Your task to perform on an android device: Is it going to rain tomorrow? Image 0: 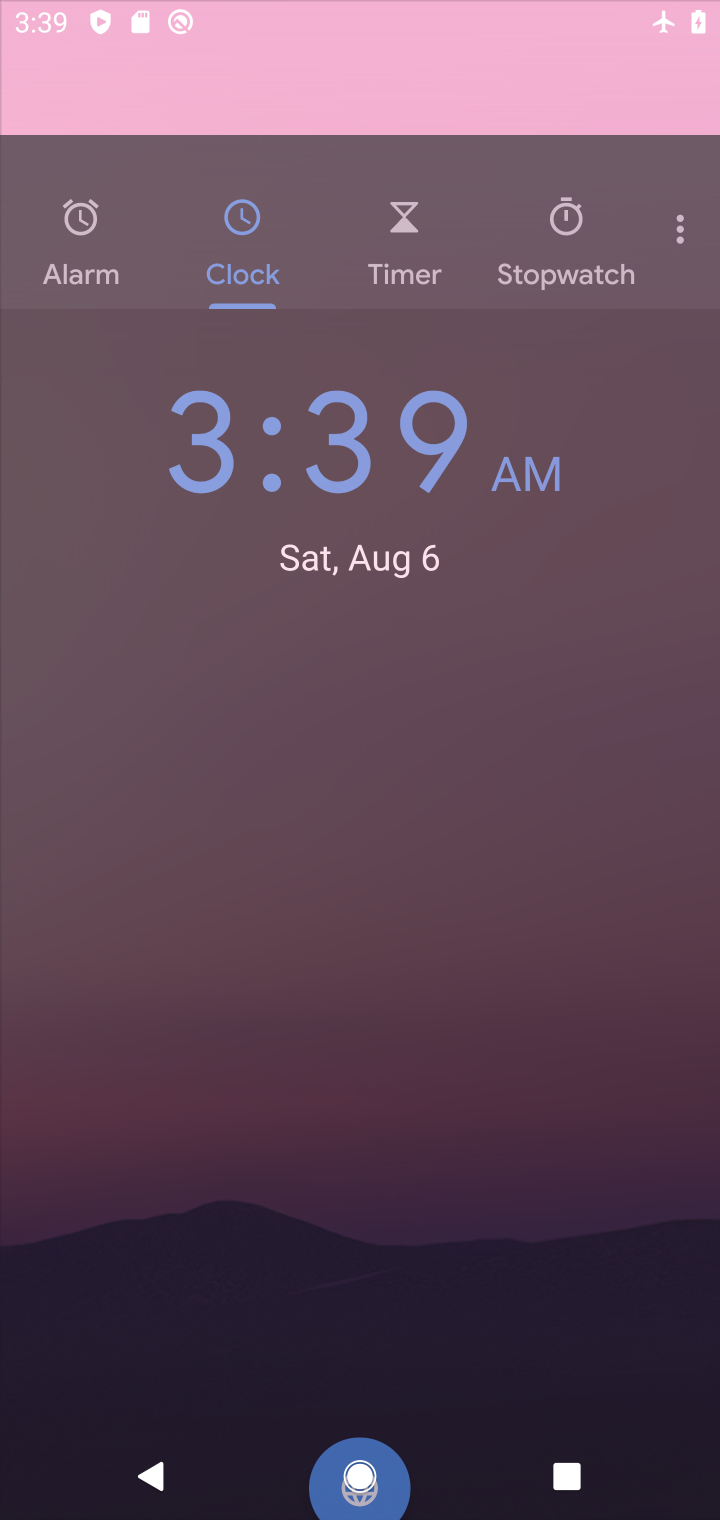
Step 0: click (84, 130)
Your task to perform on an android device: Is it going to rain tomorrow? Image 1: 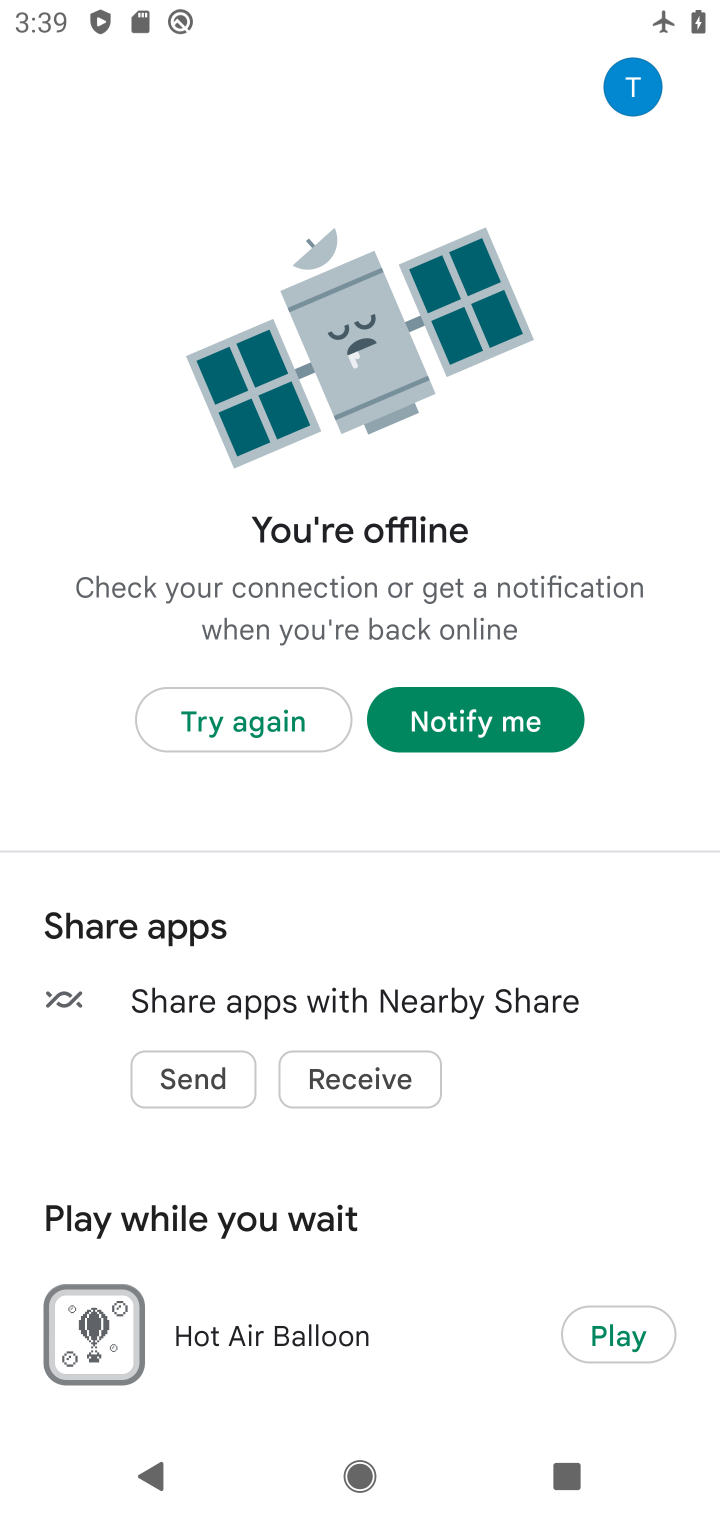
Step 1: press home button
Your task to perform on an android device: Is it going to rain tomorrow? Image 2: 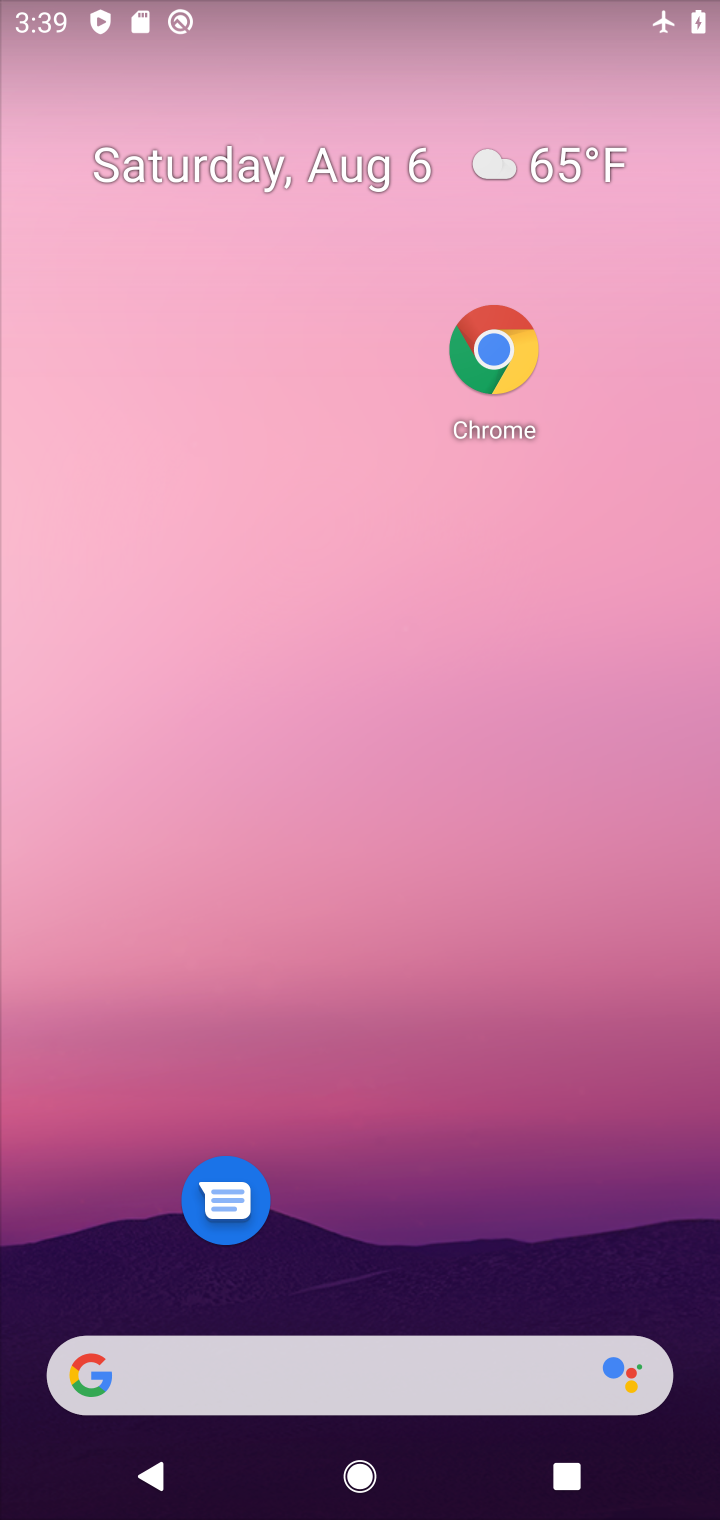
Step 2: drag from (374, 1234) to (381, 584)
Your task to perform on an android device: Is it going to rain tomorrow? Image 3: 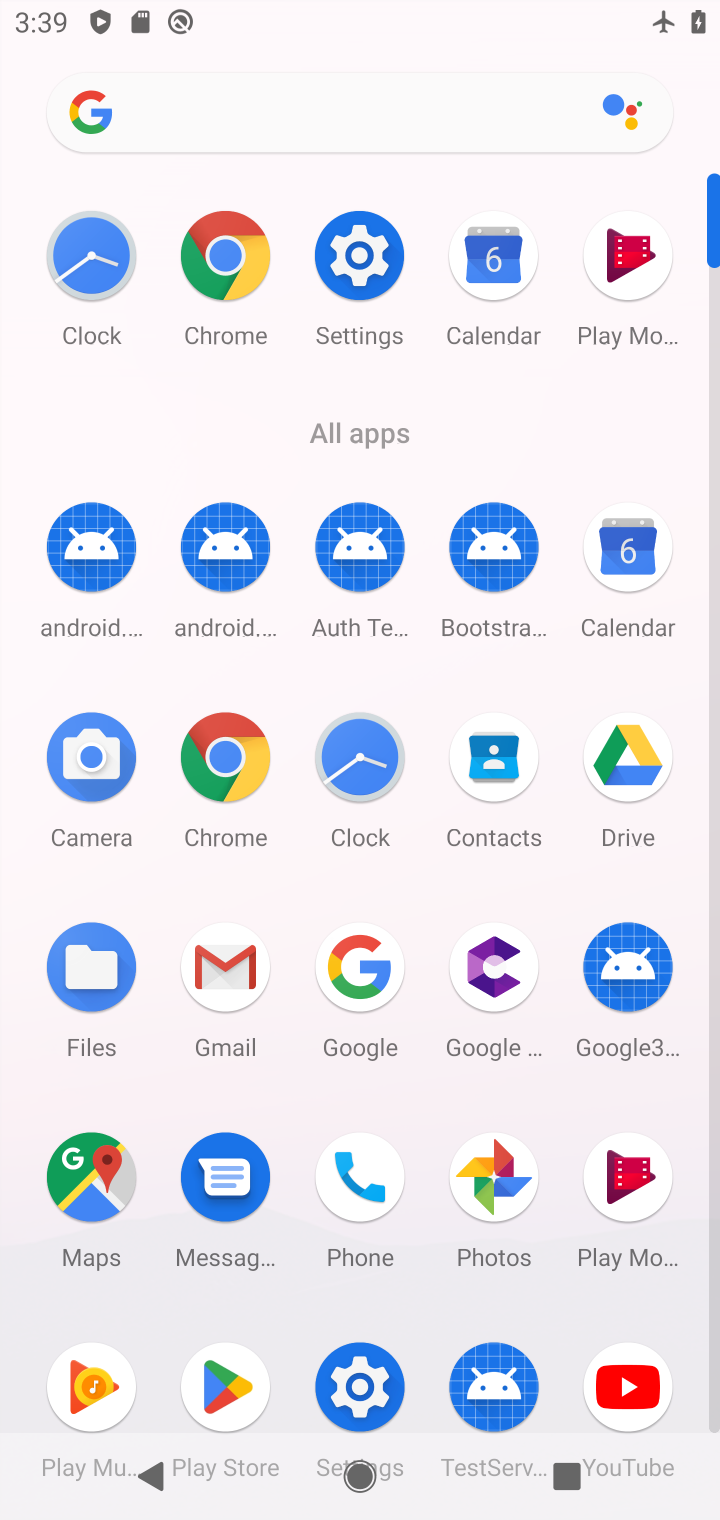
Step 3: click (350, 967)
Your task to perform on an android device: Is it going to rain tomorrow? Image 4: 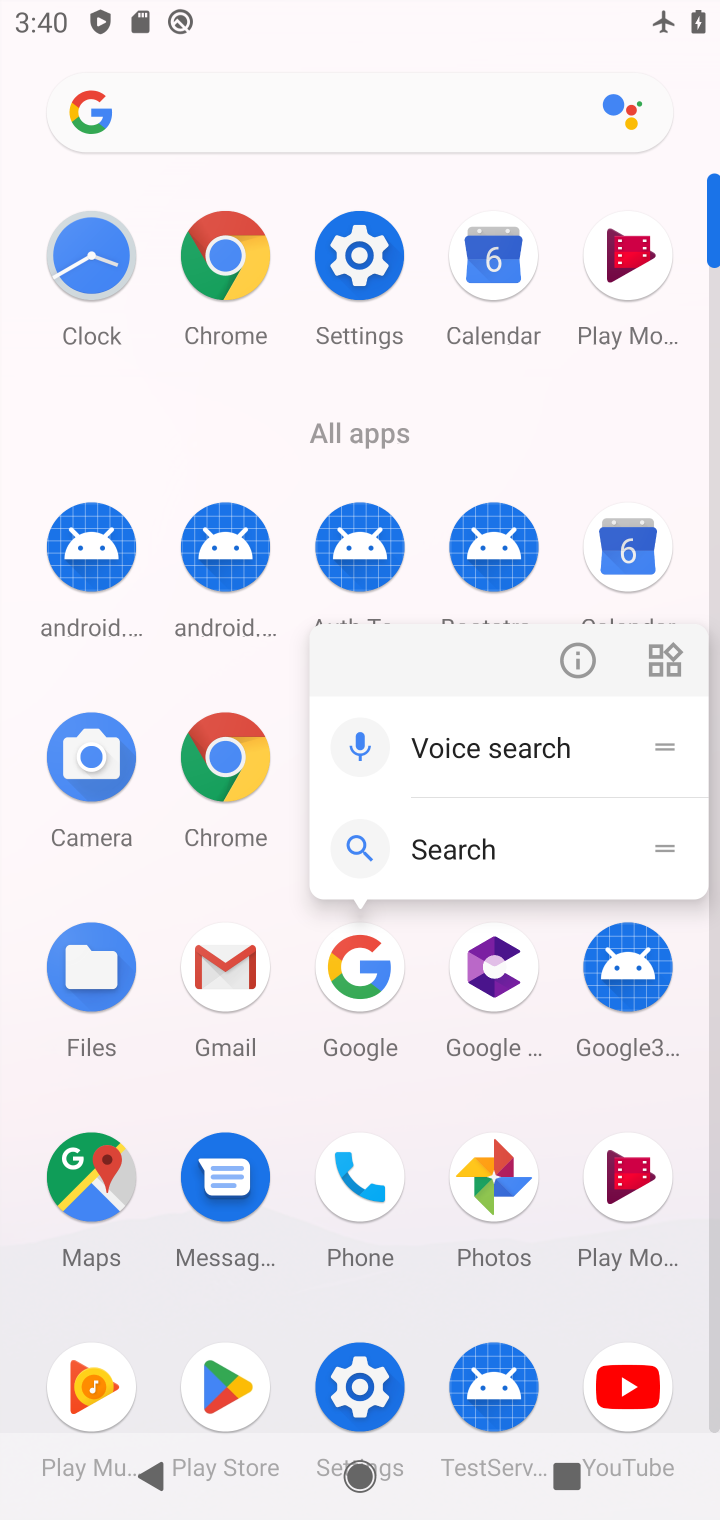
Step 4: click (370, 966)
Your task to perform on an android device: Is it going to rain tomorrow? Image 5: 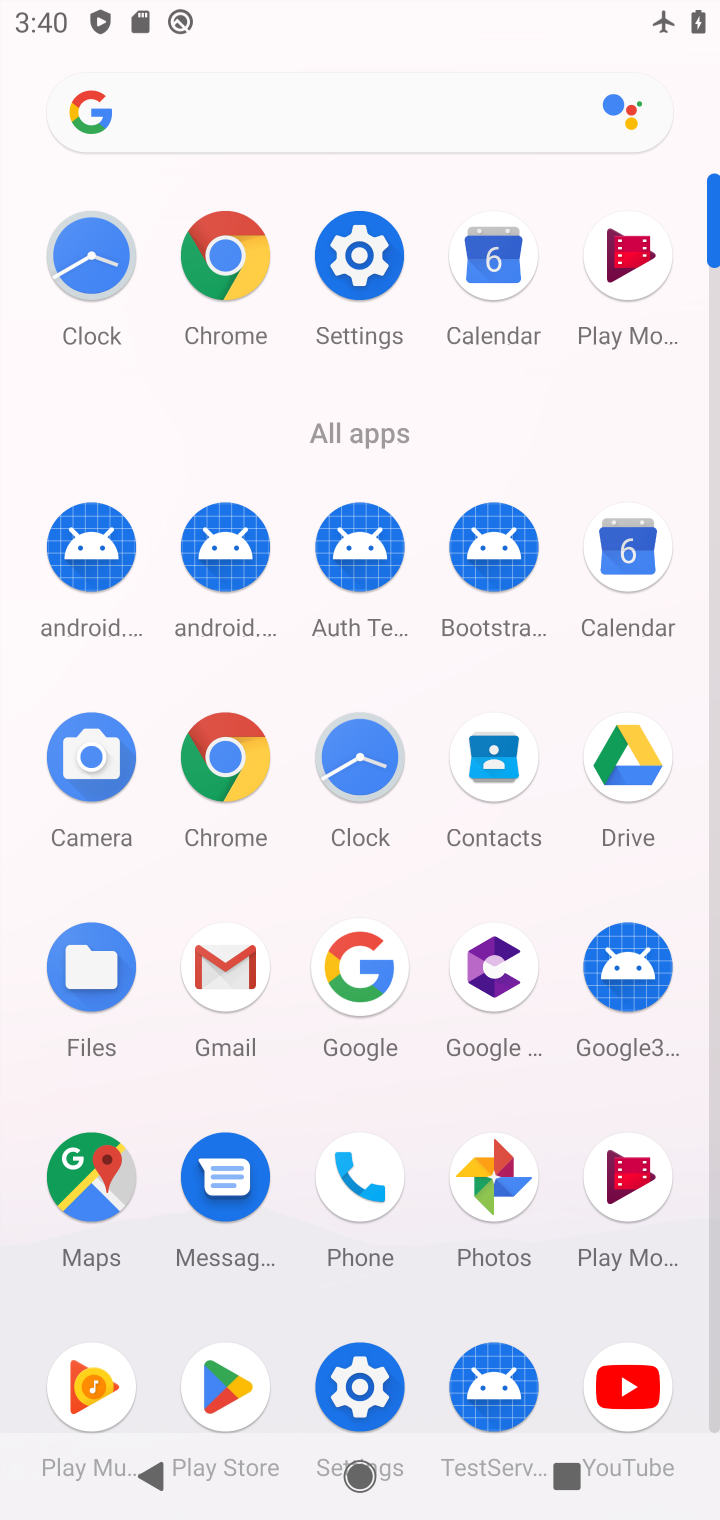
Step 5: click (370, 966)
Your task to perform on an android device: Is it going to rain tomorrow? Image 6: 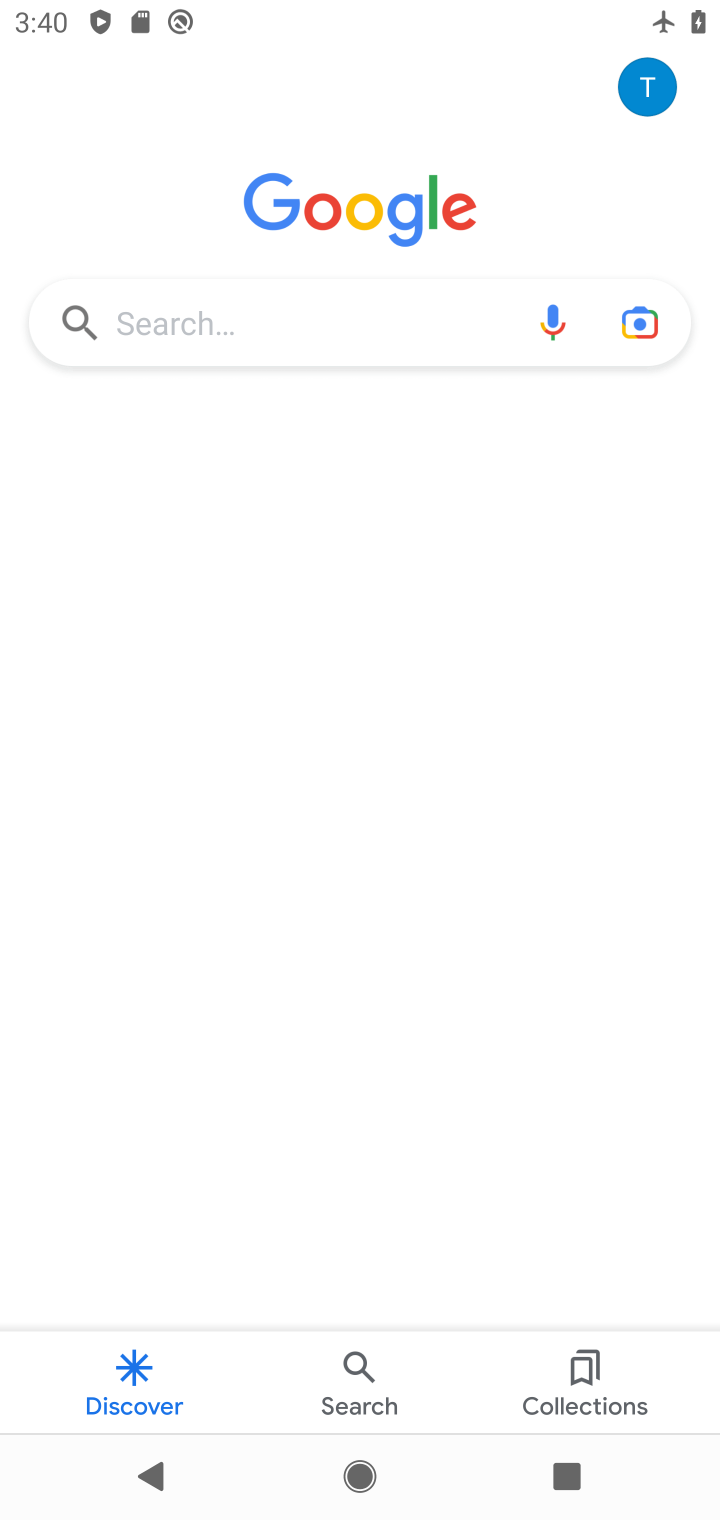
Step 6: click (180, 335)
Your task to perform on an android device: Is it going to rain tomorrow? Image 7: 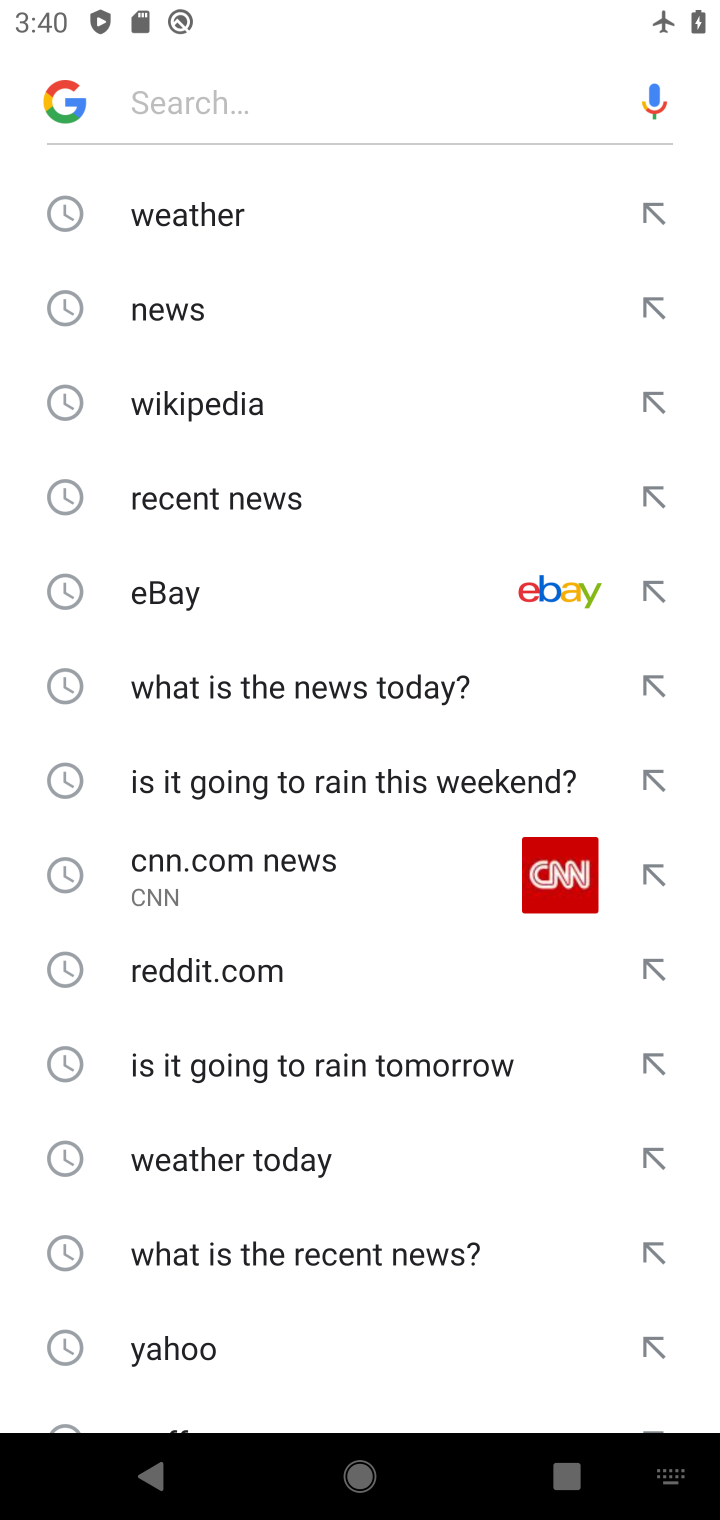
Step 7: type "Is it going to rain tomorrow?"
Your task to perform on an android device: Is it going to rain tomorrow? Image 8: 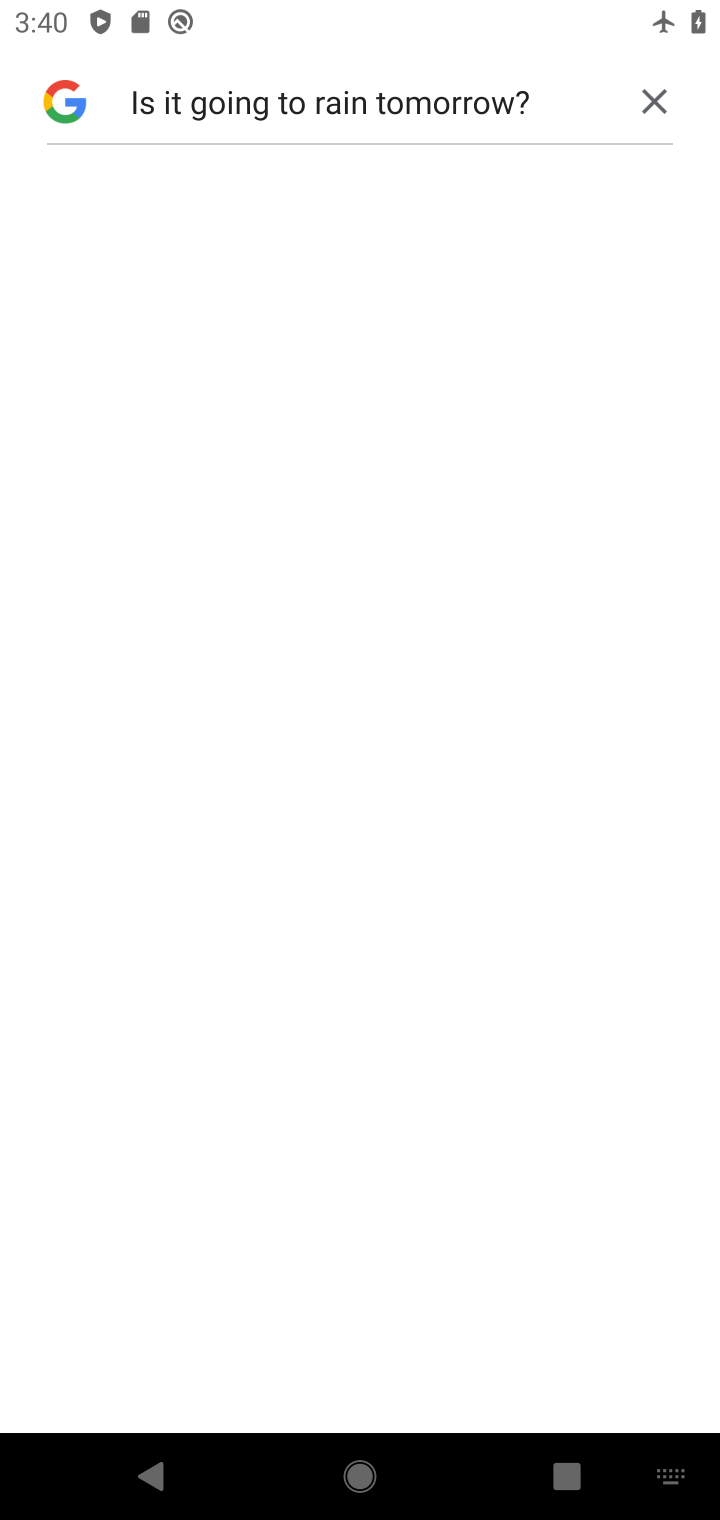
Step 8: click (546, 100)
Your task to perform on an android device: Is it going to rain tomorrow? Image 9: 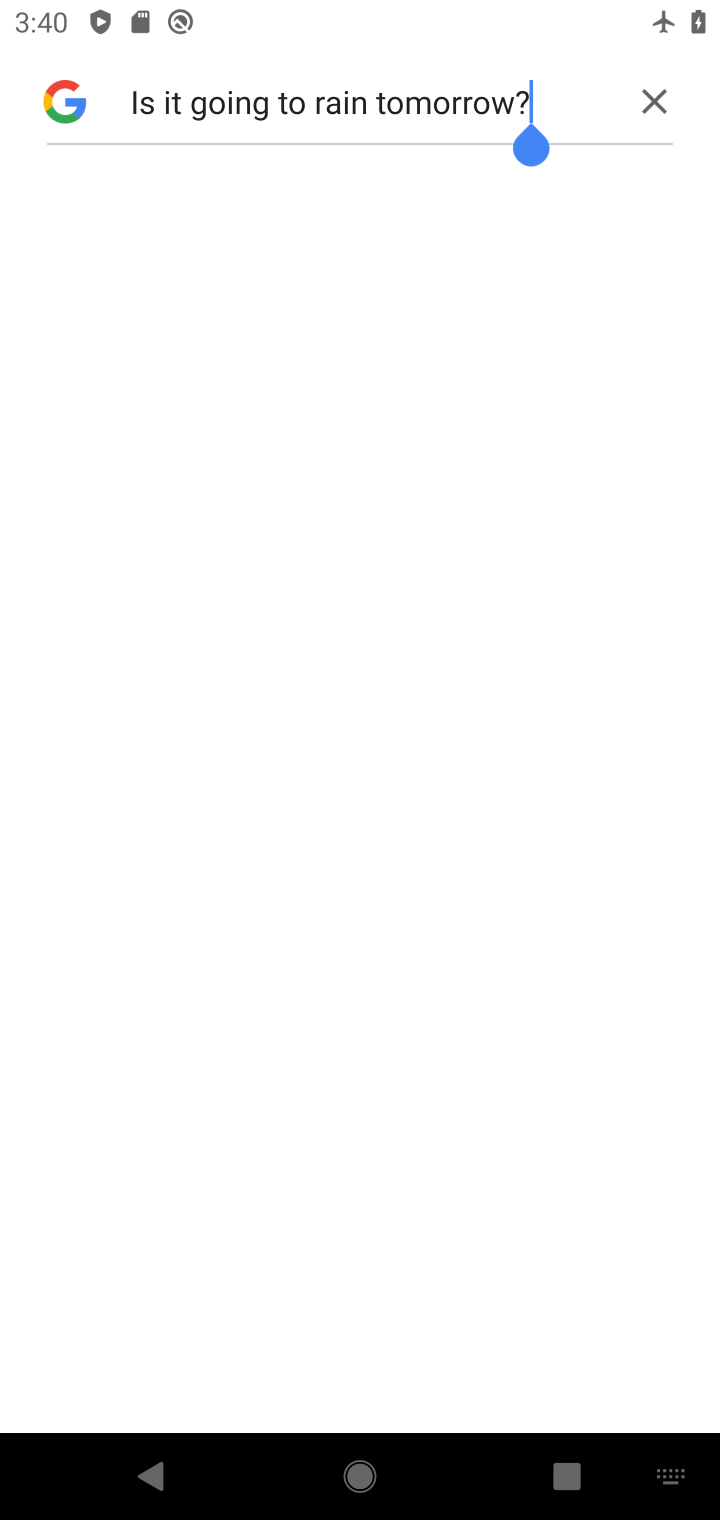
Step 9: click (641, 103)
Your task to perform on an android device: Is it going to rain tomorrow? Image 10: 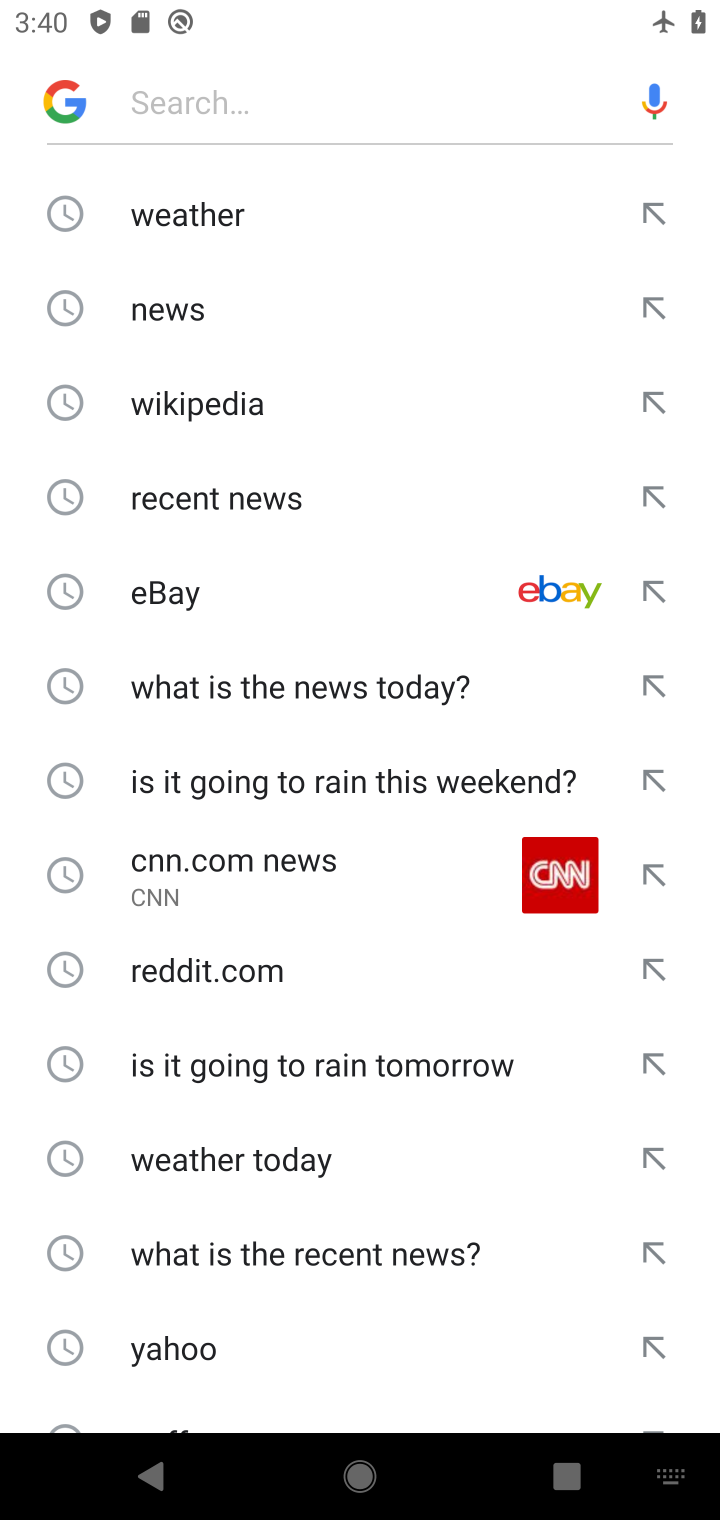
Step 10: task complete